Your task to perform on an android device: Do I have any events today? Image 0: 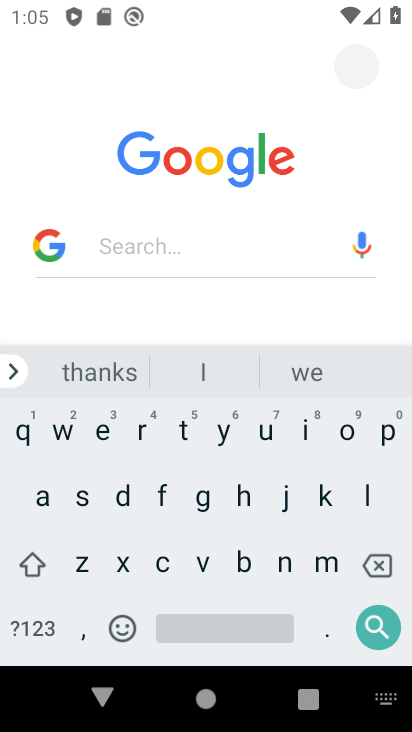
Step 0: press home button
Your task to perform on an android device: Do I have any events today? Image 1: 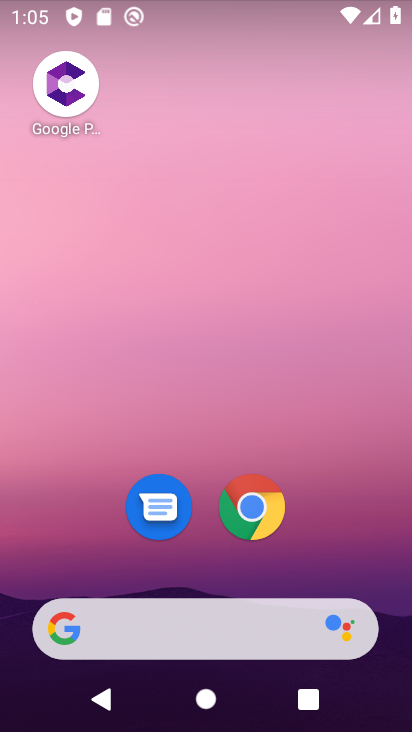
Step 1: drag from (216, 503) to (184, 150)
Your task to perform on an android device: Do I have any events today? Image 2: 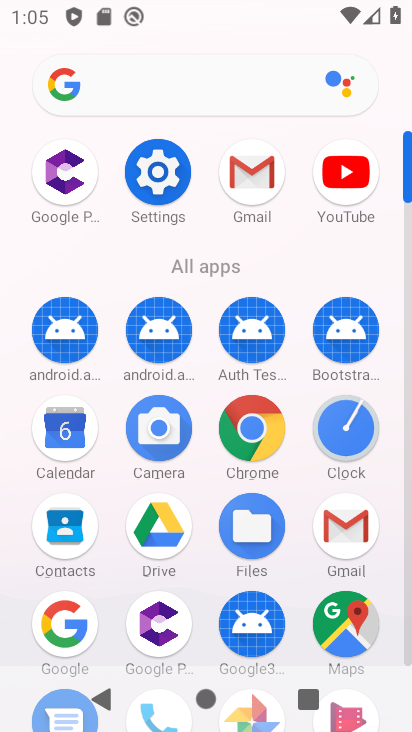
Step 2: click (61, 450)
Your task to perform on an android device: Do I have any events today? Image 3: 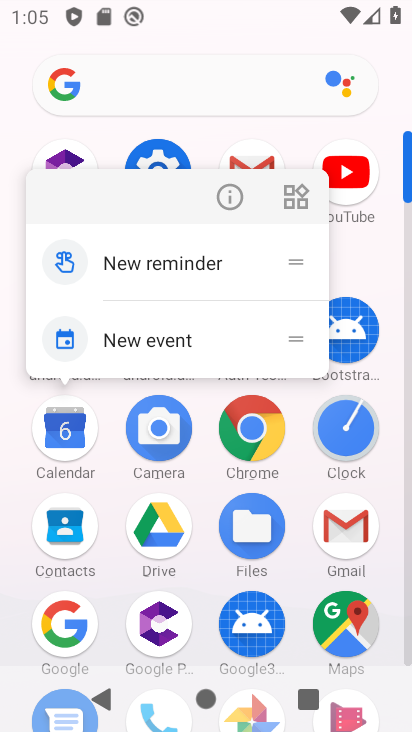
Step 3: click (61, 447)
Your task to perform on an android device: Do I have any events today? Image 4: 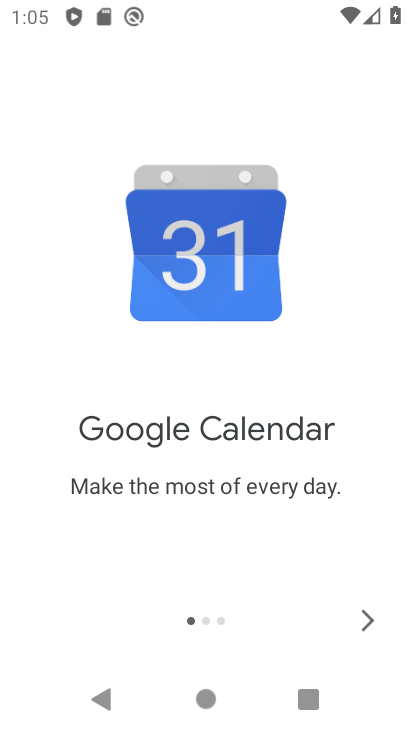
Step 4: click (372, 624)
Your task to perform on an android device: Do I have any events today? Image 5: 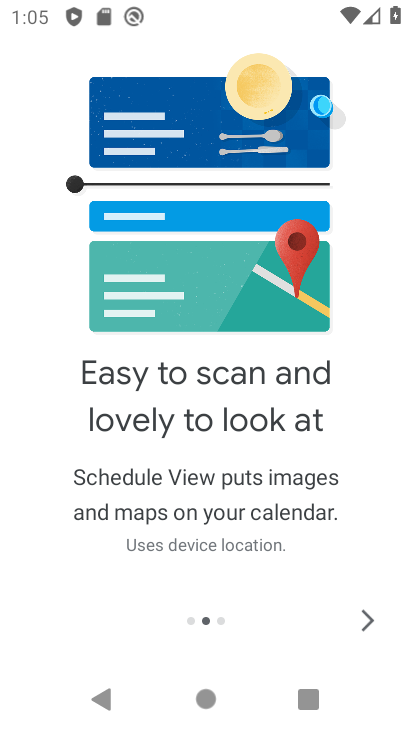
Step 5: click (361, 604)
Your task to perform on an android device: Do I have any events today? Image 6: 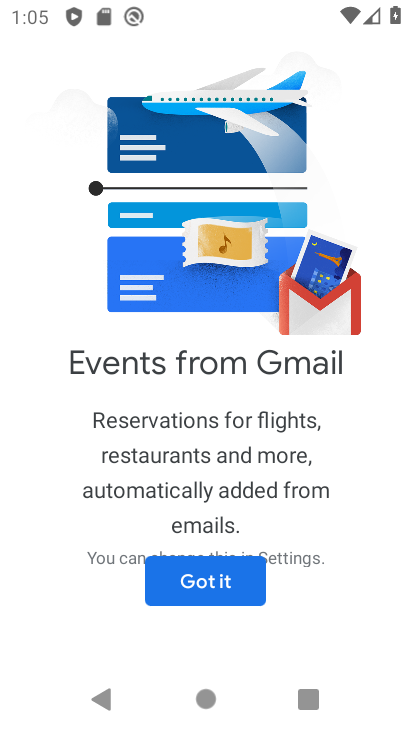
Step 6: click (359, 604)
Your task to perform on an android device: Do I have any events today? Image 7: 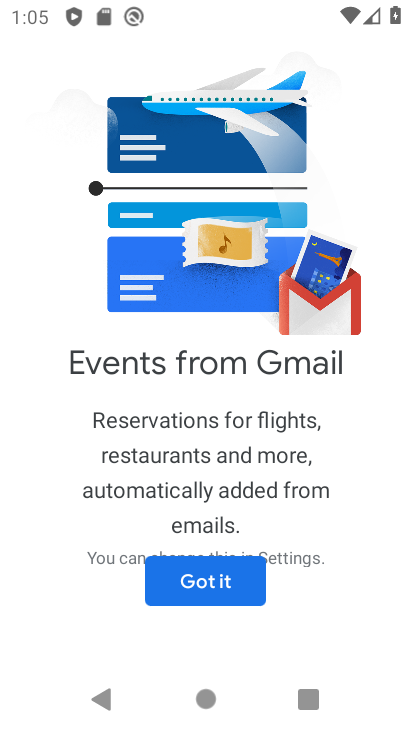
Step 7: click (208, 558)
Your task to perform on an android device: Do I have any events today? Image 8: 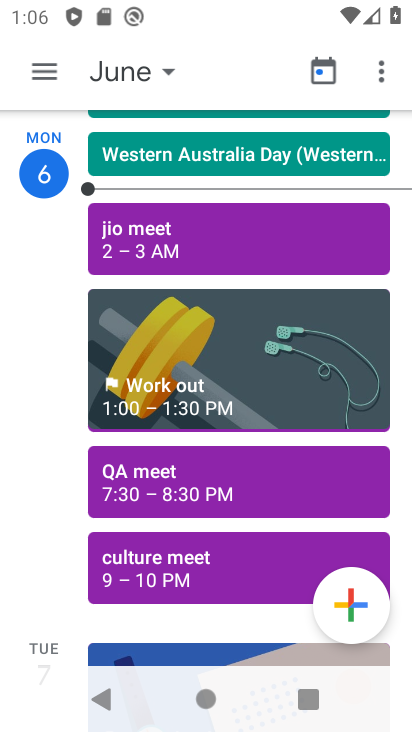
Step 8: task complete